Your task to perform on an android device: turn off improve location accuracy Image 0: 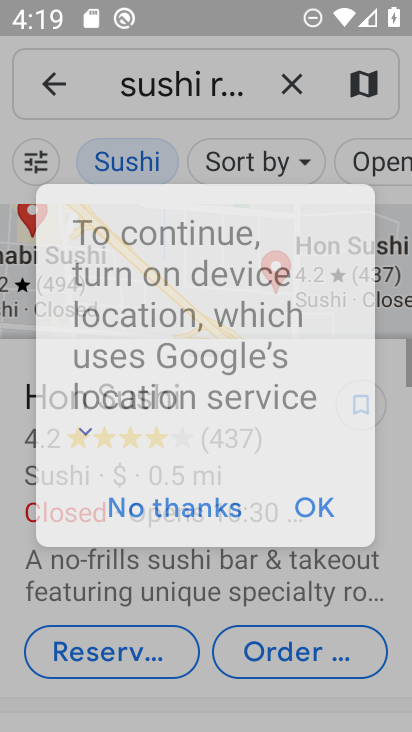
Step 0: press home button
Your task to perform on an android device: turn off improve location accuracy Image 1: 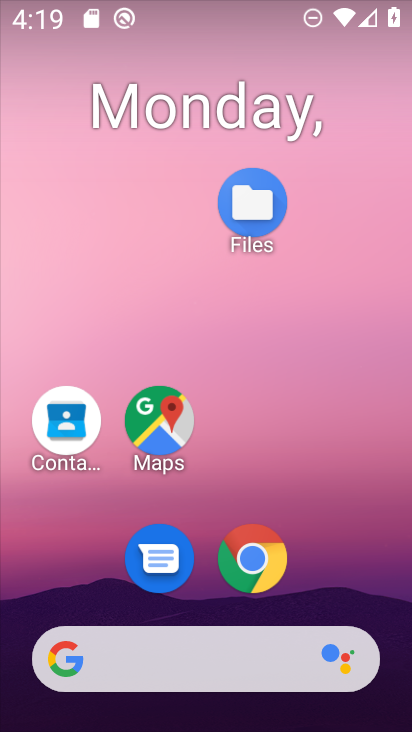
Step 1: drag from (212, 593) to (275, 30)
Your task to perform on an android device: turn off improve location accuracy Image 2: 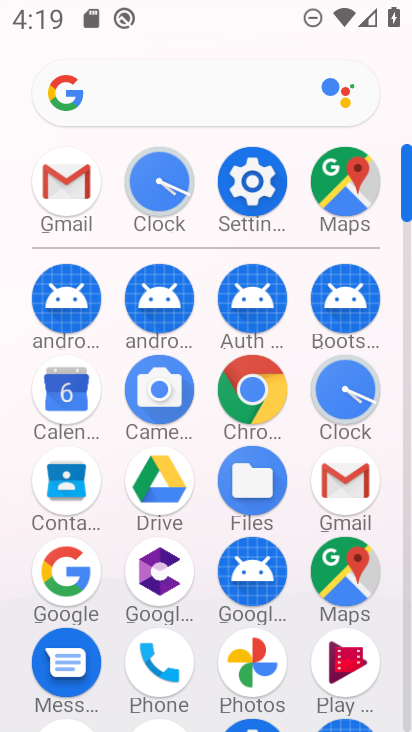
Step 2: click (255, 191)
Your task to perform on an android device: turn off improve location accuracy Image 3: 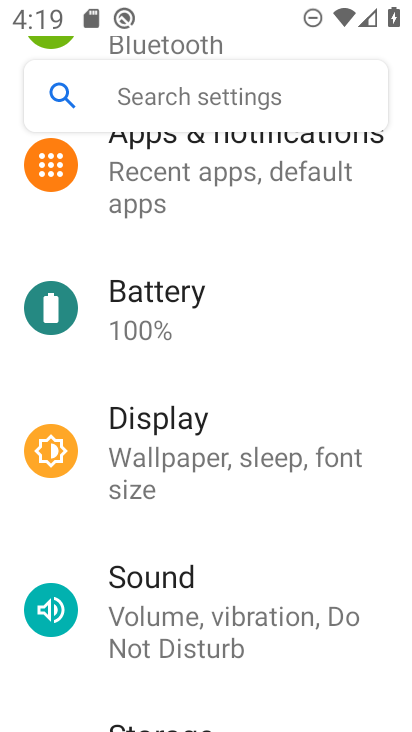
Step 3: drag from (221, 556) to (270, 108)
Your task to perform on an android device: turn off improve location accuracy Image 4: 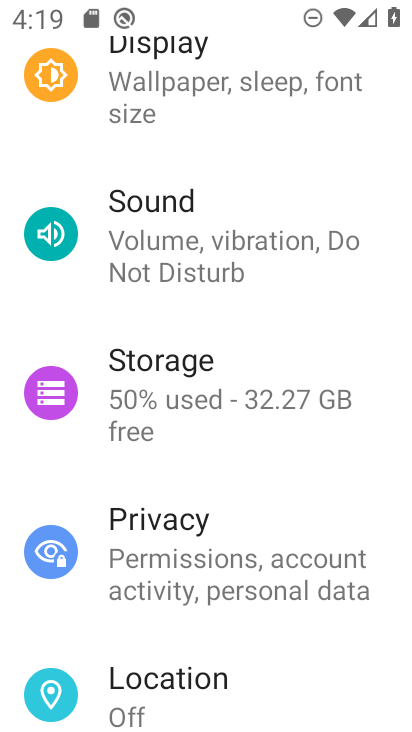
Step 4: click (221, 678)
Your task to perform on an android device: turn off improve location accuracy Image 5: 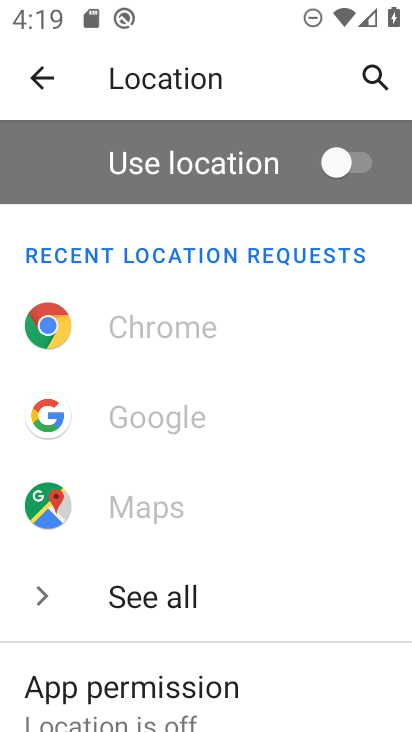
Step 5: drag from (220, 654) to (238, 291)
Your task to perform on an android device: turn off improve location accuracy Image 6: 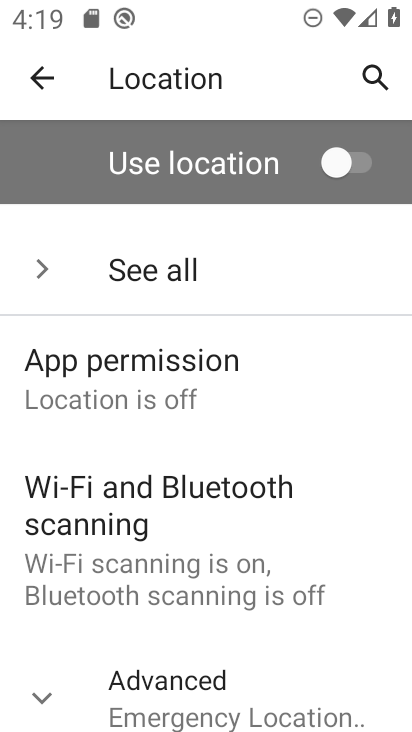
Step 6: drag from (220, 688) to (233, 360)
Your task to perform on an android device: turn off improve location accuracy Image 7: 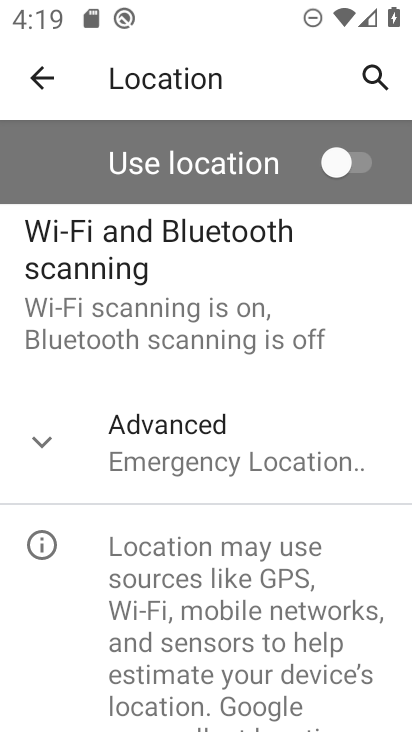
Step 7: click (204, 453)
Your task to perform on an android device: turn off improve location accuracy Image 8: 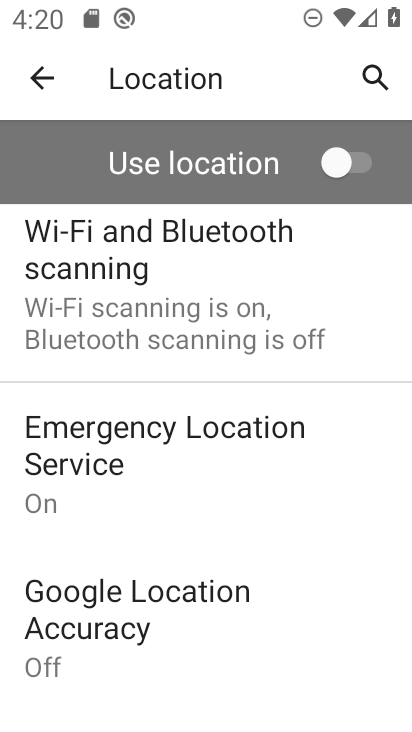
Step 8: click (207, 592)
Your task to perform on an android device: turn off improve location accuracy Image 9: 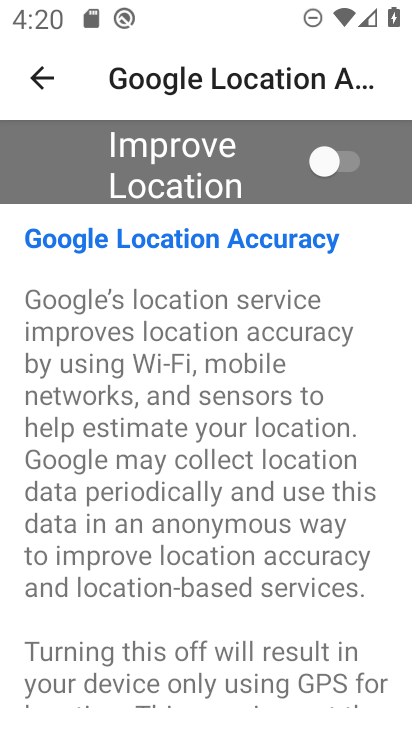
Step 9: task complete